Your task to perform on an android device: Open calendar and show me the first week of next month Image 0: 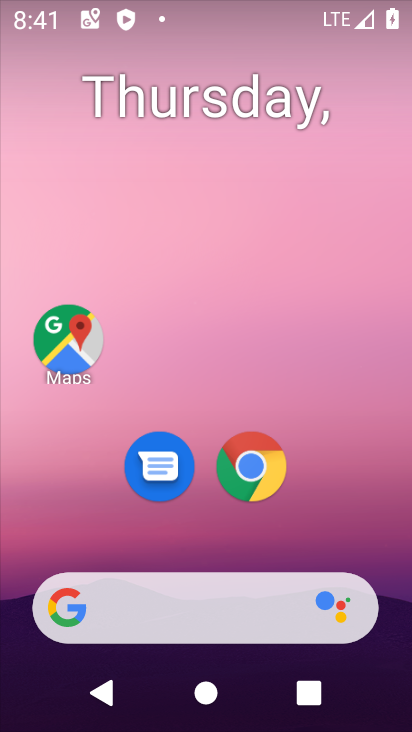
Step 0: drag from (342, 537) to (358, 128)
Your task to perform on an android device: Open calendar and show me the first week of next month Image 1: 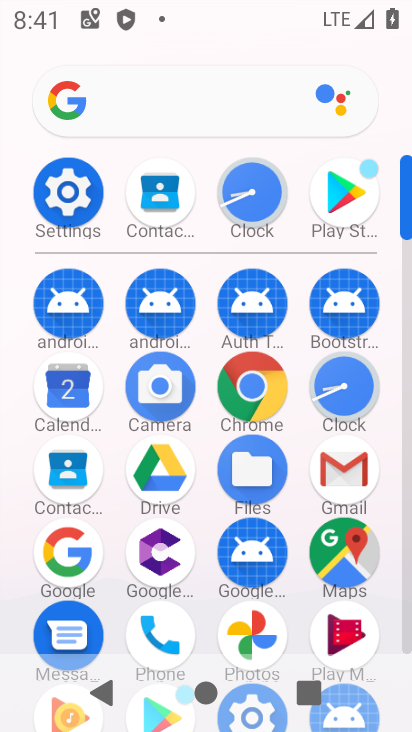
Step 1: click (69, 383)
Your task to perform on an android device: Open calendar and show me the first week of next month Image 2: 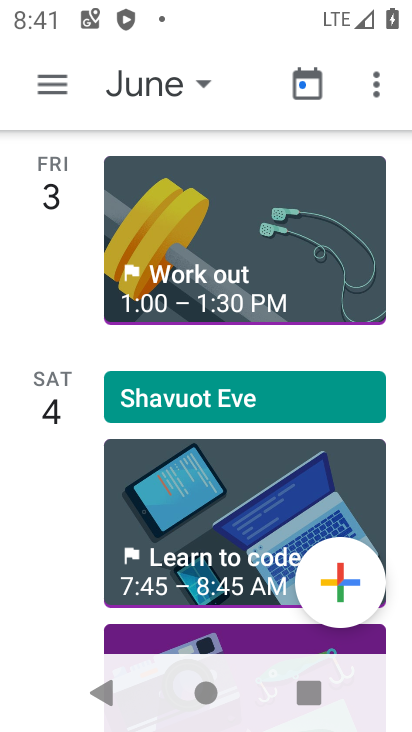
Step 2: click (54, 83)
Your task to perform on an android device: Open calendar and show me the first week of next month Image 3: 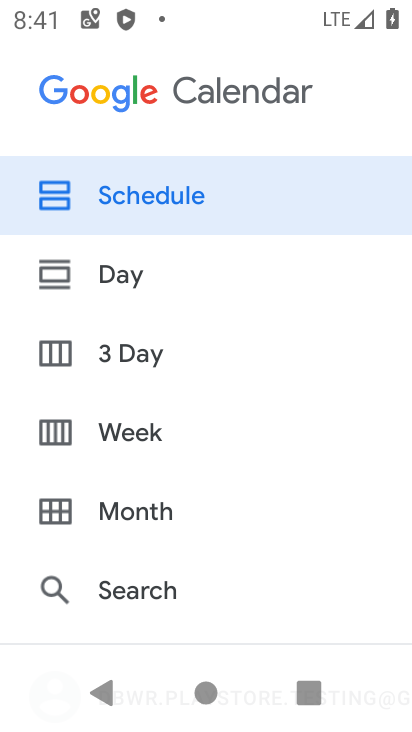
Step 3: click (222, 515)
Your task to perform on an android device: Open calendar and show me the first week of next month Image 4: 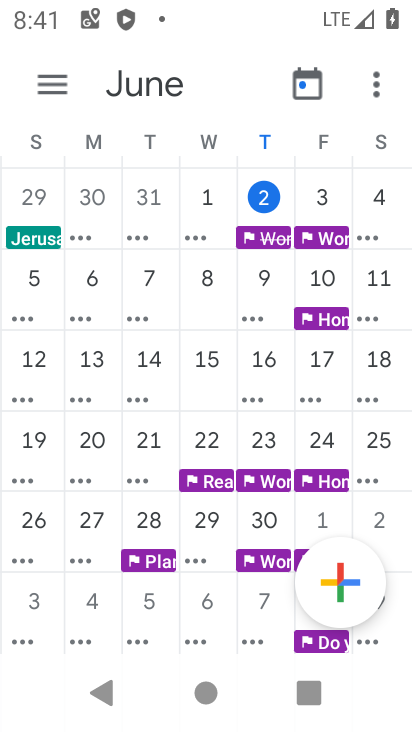
Step 4: drag from (374, 363) to (8, 311)
Your task to perform on an android device: Open calendar and show me the first week of next month Image 5: 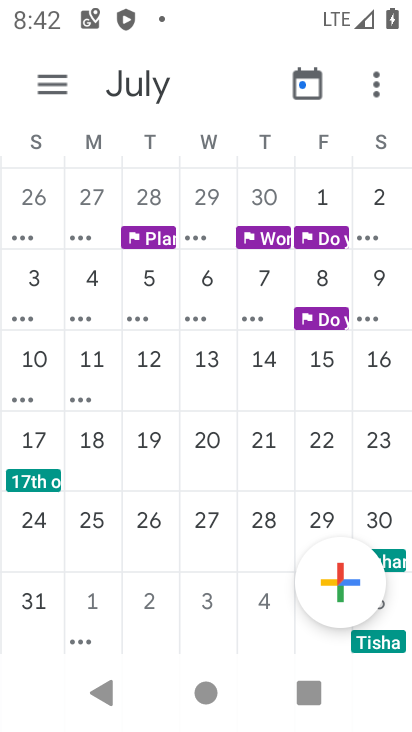
Step 5: click (322, 208)
Your task to perform on an android device: Open calendar and show me the first week of next month Image 6: 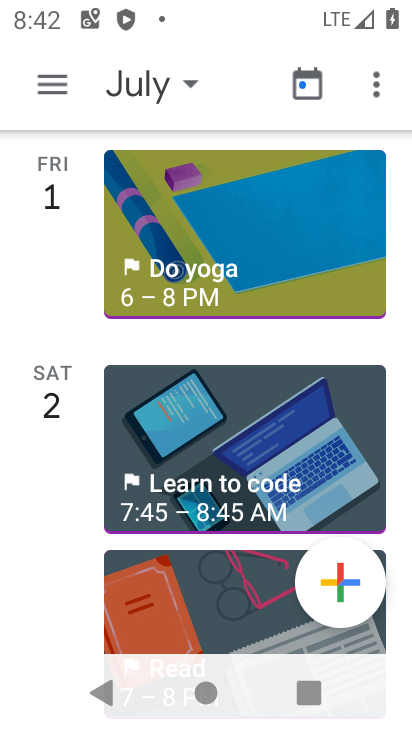
Step 6: task complete